Your task to perform on an android device: toggle sleep mode Image 0: 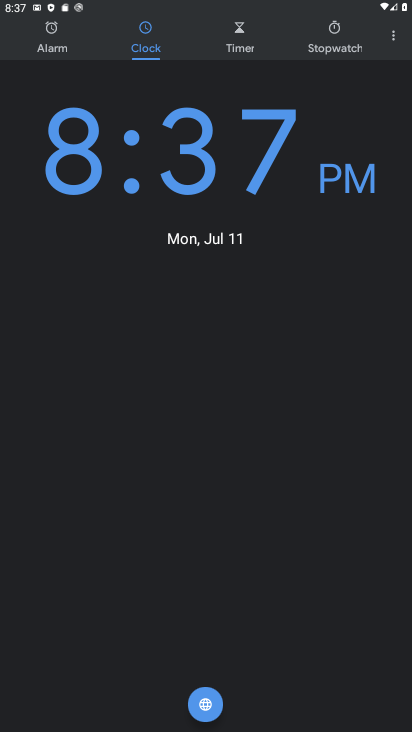
Step 0: press home button
Your task to perform on an android device: toggle sleep mode Image 1: 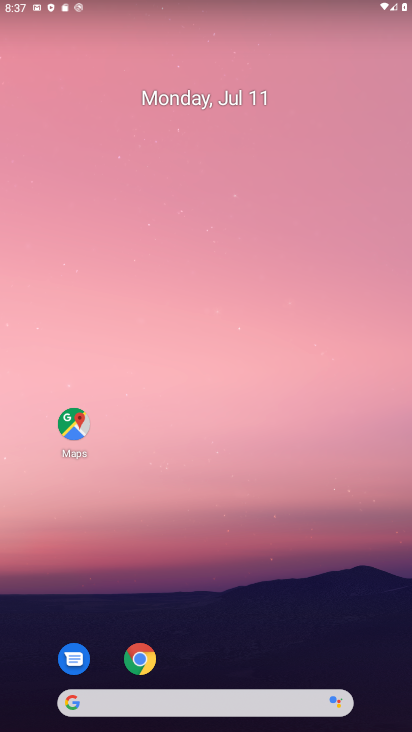
Step 1: drag from (201, 726) to (201, 655)
Your task to perform on an android device: toggle sleep mode Image 2: 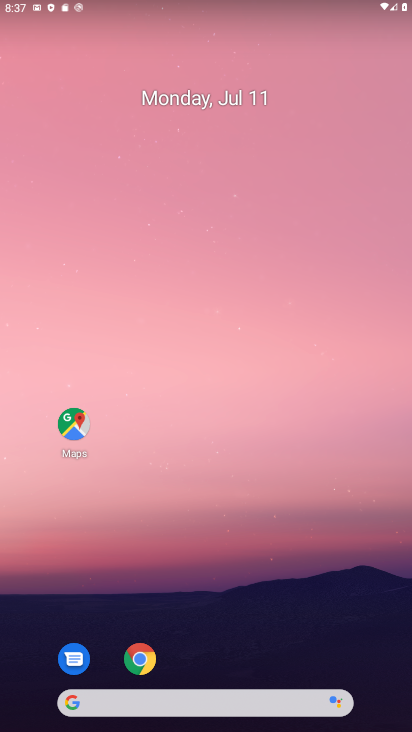
Step 2: drag from (179, 375) to (169, 138)
Your task to perform on an android device: toggle sleep mode Image 3: 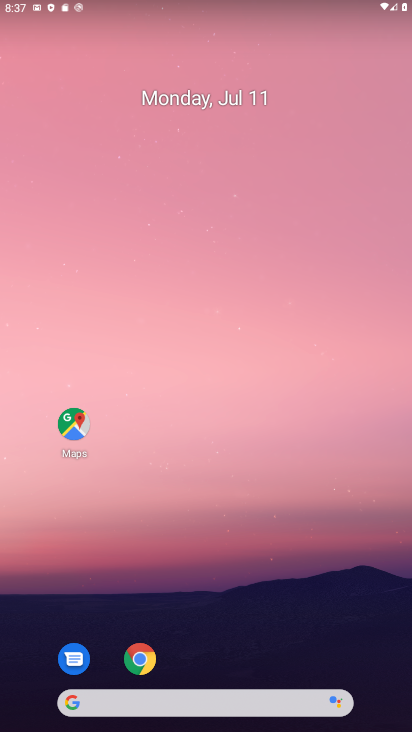
Step 3: drag from (308, 728) to (299, 86)
Your task to perform on an android device: toggle sleep mode Image 4: 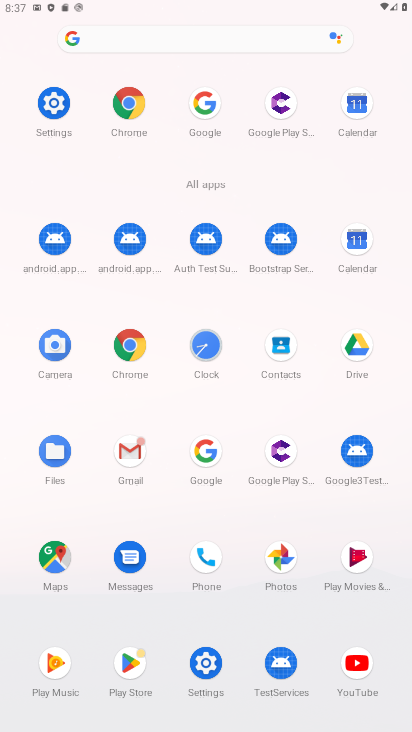
Step 4: click (50, 102)
Your task to perform on an android device: toggle sleep mode Image 5: 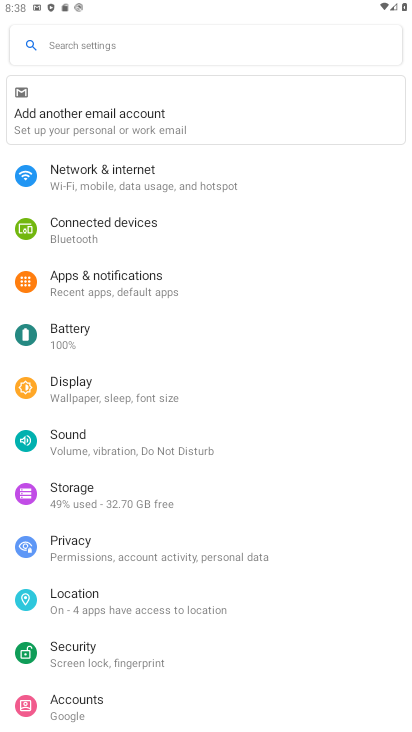
Step 5: click (85, 392)
Your task to perform on an android device: toggle sleep mode Image 6: 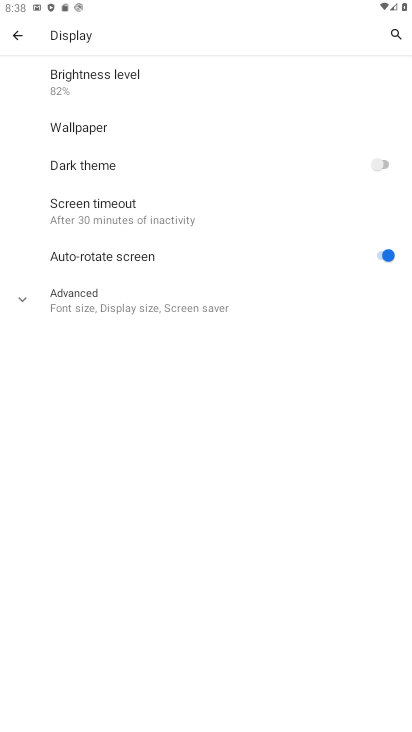
Step 6: task complete